Your task to perform on an android device: turn on location history Image 0: 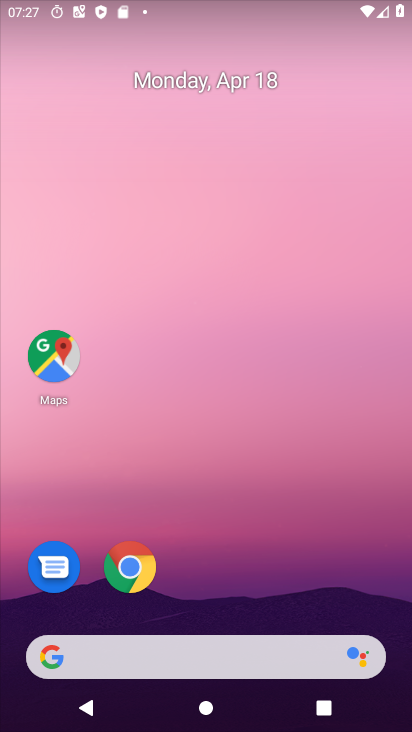
Step 0: drag from (382, 557) to (277, 30)
Your task to perform on an android device: turn on location history Image 1: 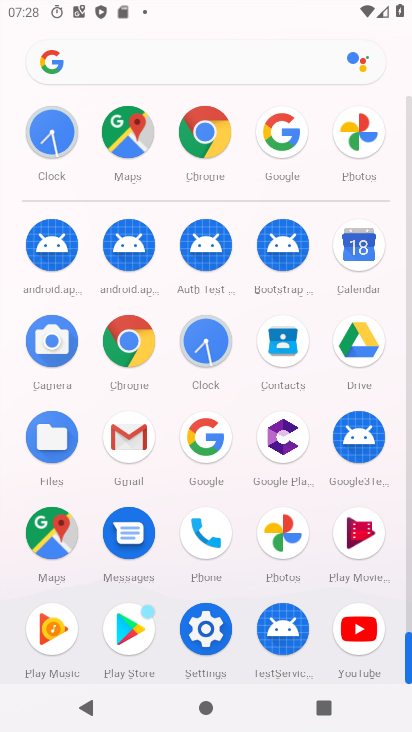
Step 1: click (137, 126)
Your task to perform on an android device: turn on location history Image 2: 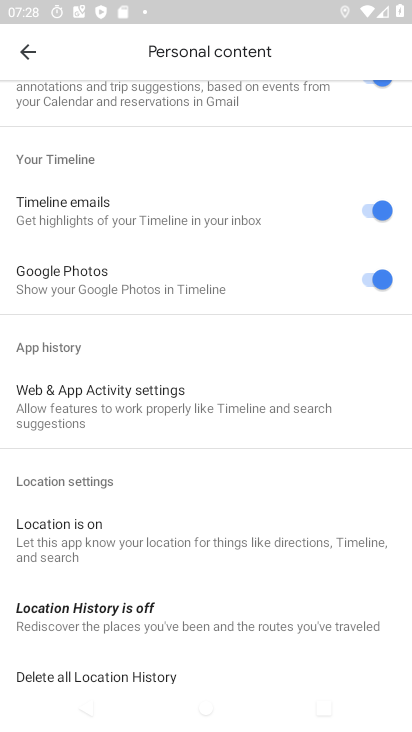
Step 2: click (141, 619)
Your task to perform on an android device: turn on location history Image 3: 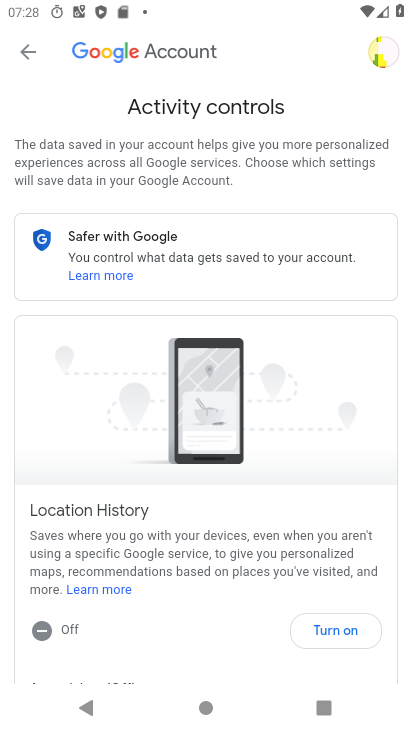
Step 3: drag from (233, 524) to (81, 118)
Your task to perform on an android device: turn on location history Image 4: 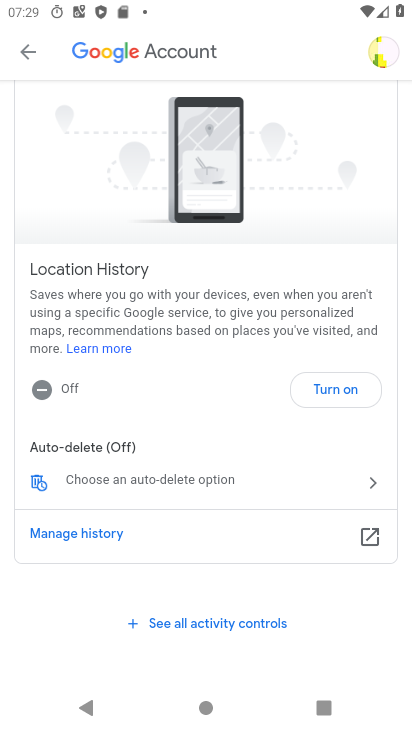
Step 4: click (347, 394)
Your task to perform on an android device: turn on location history Image 5: 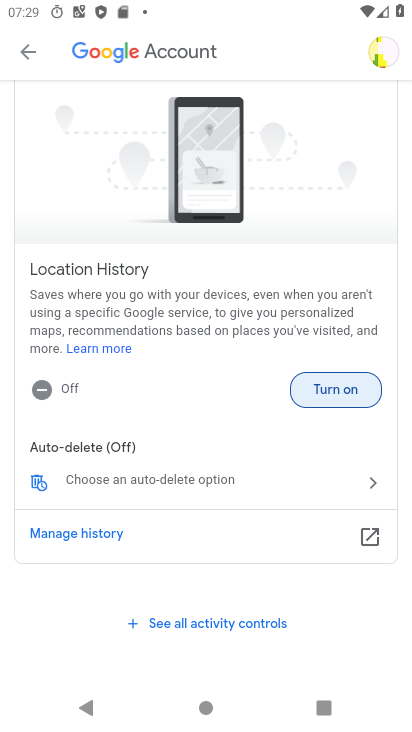
Step 5: click (347, 394)
Your task to perform on an android device: turn on location history Image 6: 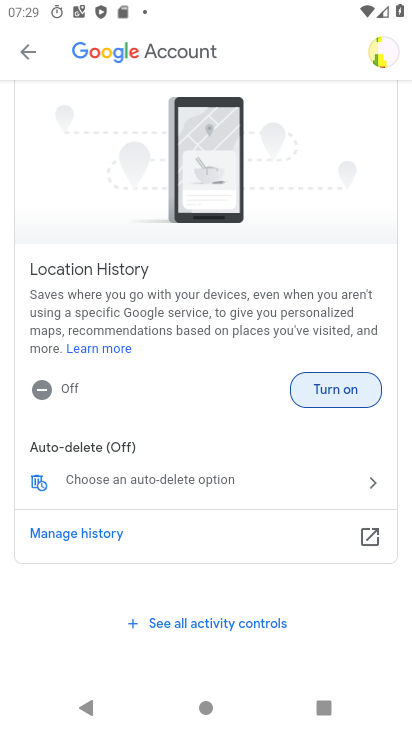
Step 6: click (327, 390)
Your task to perform on an android device: turn on location history Image 7: 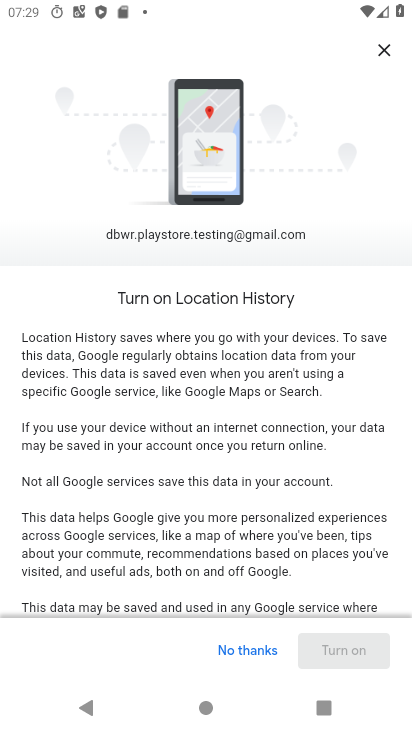
Step 7: drag from (285, 479) to (287, 0)
Your task to perform on an android device: turn on location history Image 8: 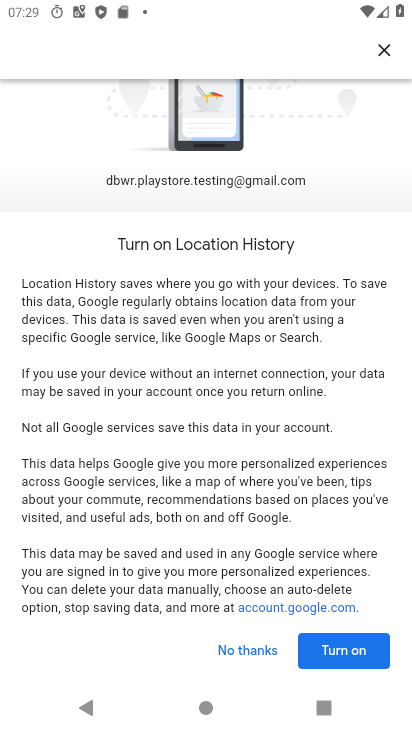
Step 8: click (371, 642)
Your task to perform on an android device: turn on location history Image 9: 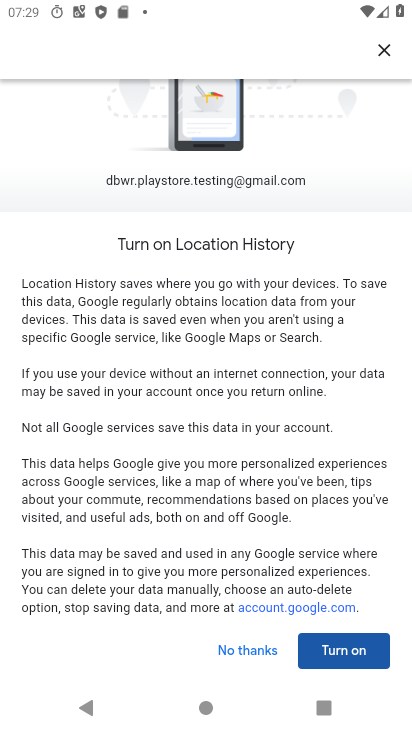
Step 9: click (371, 642)
Your task to perform on an android device: turn on location history Image 10: 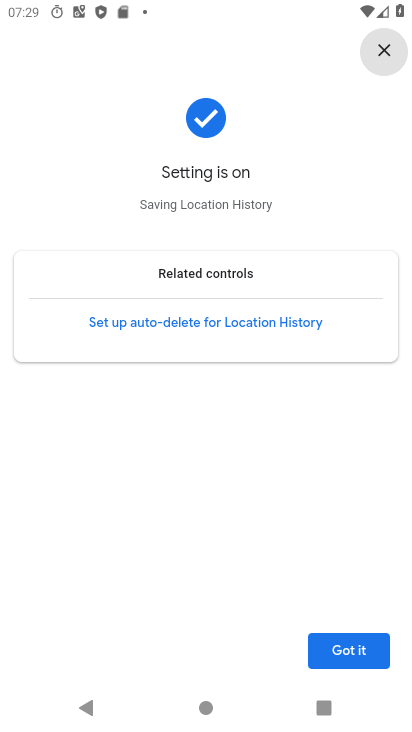
Step 10: click (348, 655)
Your task to perform on an android device: turn on location history Image 11: 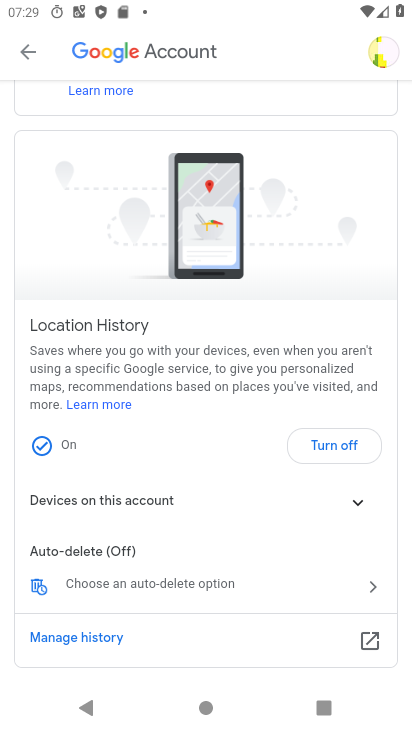
Step 11: task complete